Your task to perform on an android device: open the mobile data screen to see how much data has been used Image 0: 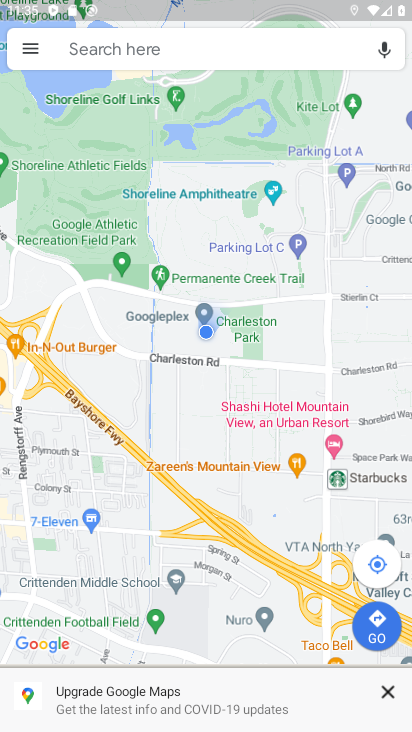
Step 0: press home button
Your task to perform on an android device: open the mobile data screen to see how much data has been used Image 1: 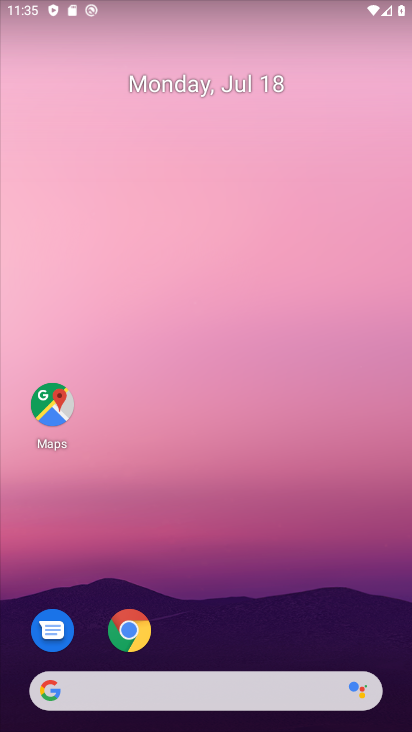
Step 1: drag from (203, 611) to (241, 89)
Your task to perform on an android device: open the mobile data screen to see how much data has been used Image 2: 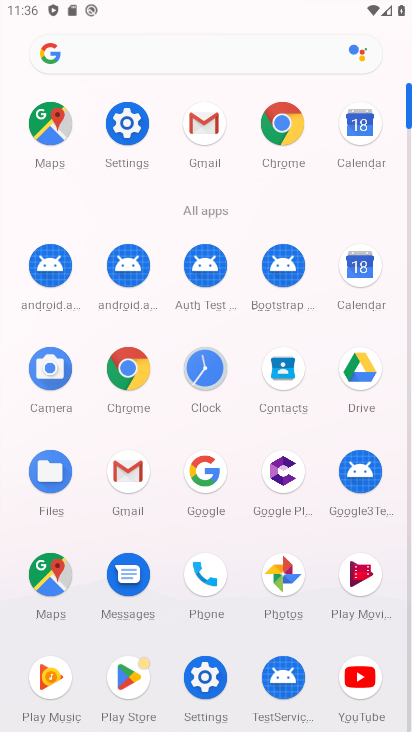
Step 2: click (120, 128)
Your task to perform on an android device: open the mobile data screen to see how much data has been used Image 3: 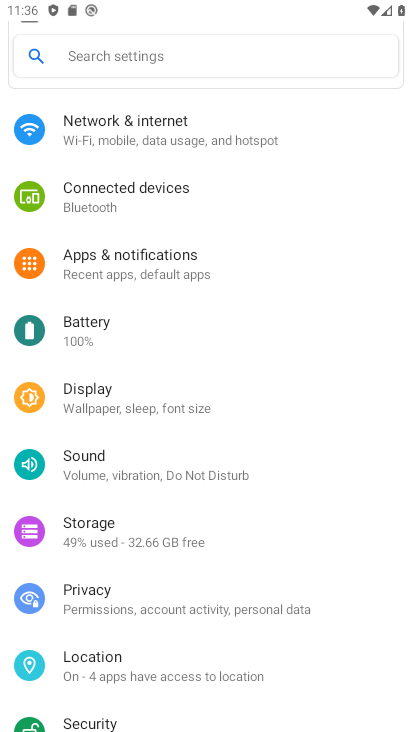
Step 3: click (179, 124)
Your task to perform on an android device: open the mobile data screen to see how much data has been used Image 4: 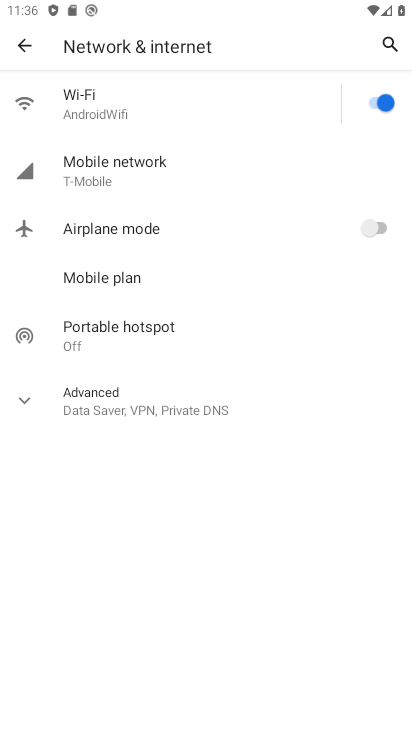
Step 4: click (124, 163)
Your task to perform on an android device: open the mobile data screen to see how much data has been used Image 5: 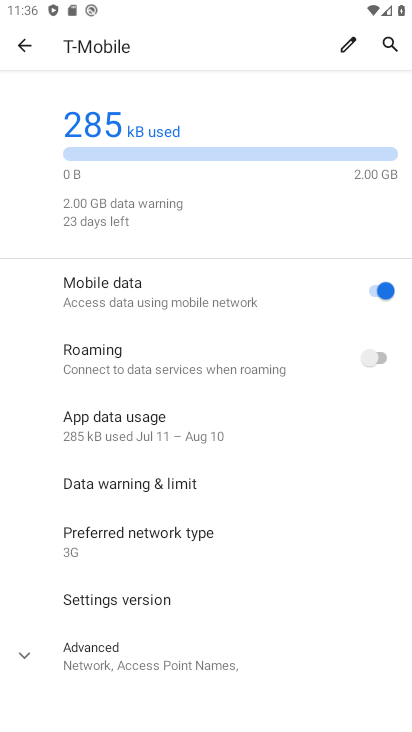
Step 5: click (160, 428)
Your task to perform on an android device: open the mobile data screen to see how much data has been used Image 6: 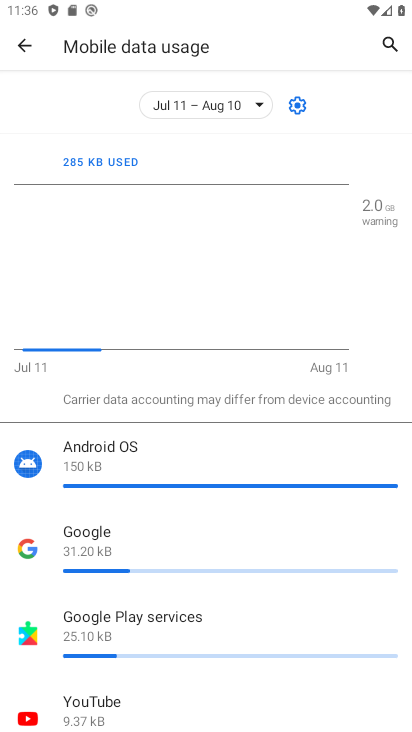
Step 6: task complete